Your task to perform on an android device: change notifications settings Image 0: 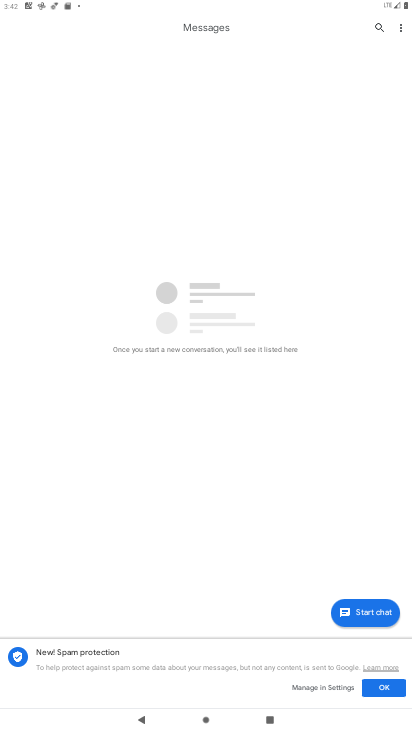
Step 0: press home button
Your task to perform on an android device: change notifications settings Image 1: 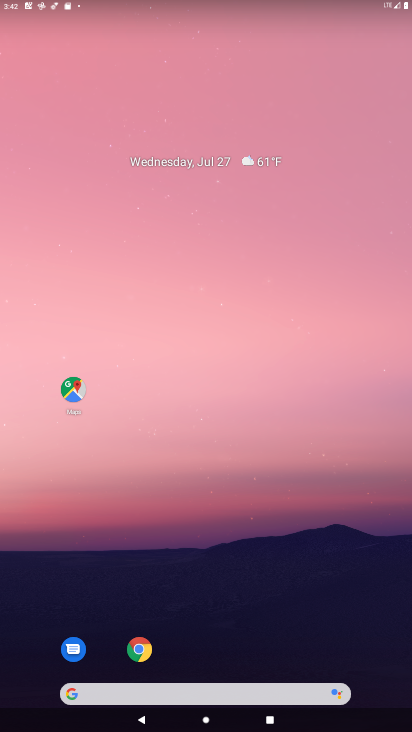
Step 1: drag from (177, 569) to (187, 36)
Your task to perform on an android device: change notifications settings Image 2: 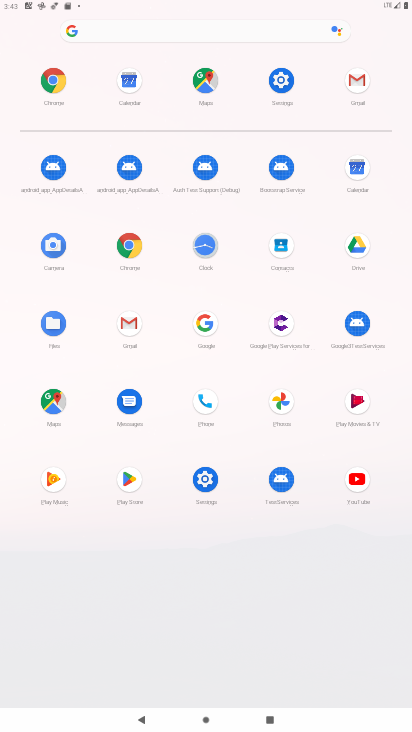
Step 2: click (277, 86)
Your task to perform on an android device: change notifications settings Image 3: 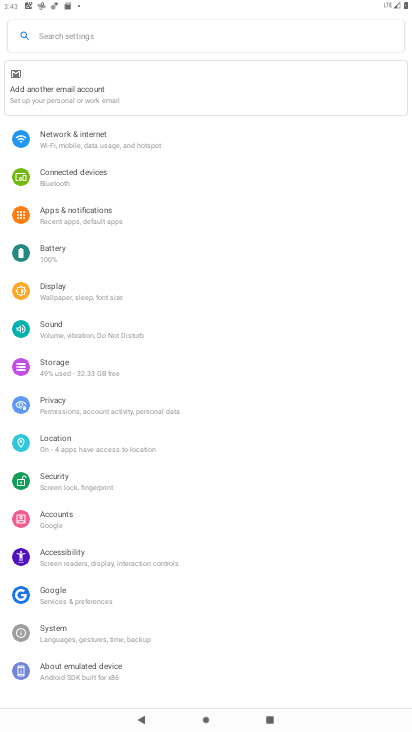
Step 3: click (63, 226)
Your task to perform on an android device: change notifications settings Image 4: 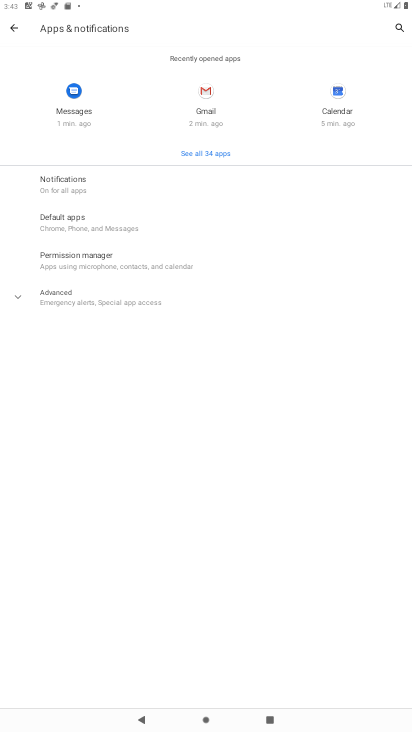
Step 4: click (63, 190)
Your task to perform on an android device: change notifications settings Image 5: 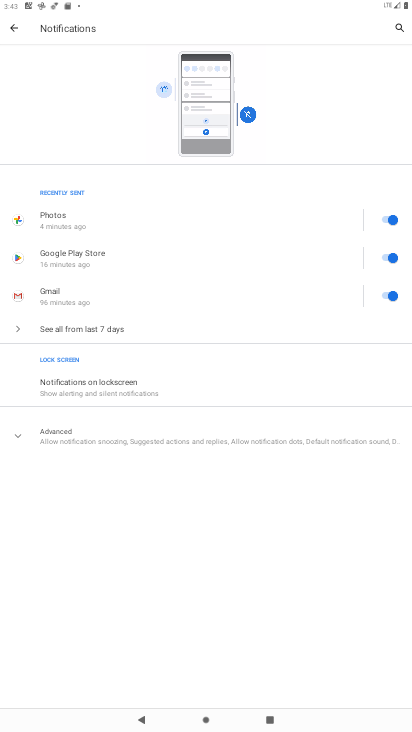
Step 5: task complete